Your task to perform on an android device: toggle improve location accuracy Image 0: 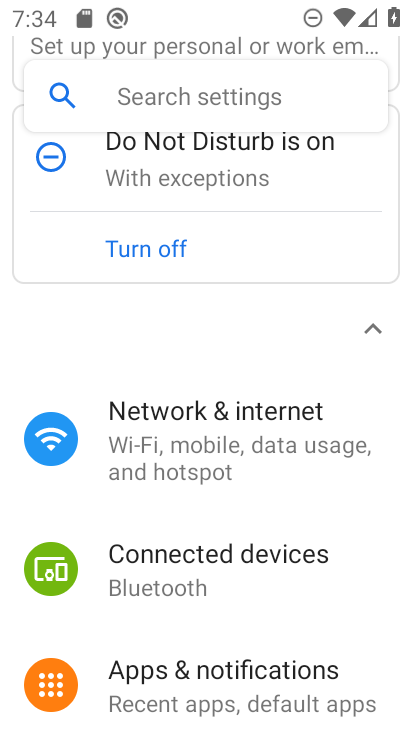
Step 0: press home button
Your task to perform on an android device: toggle improve location accuracy Image 1: 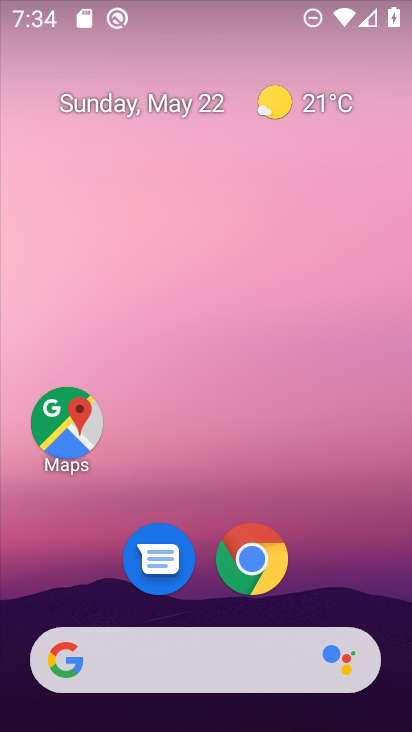
Step 1: drag from (303, 710) to (305, 138)
Your task to perform on an android device: toggle improve location accuracy Image 2: 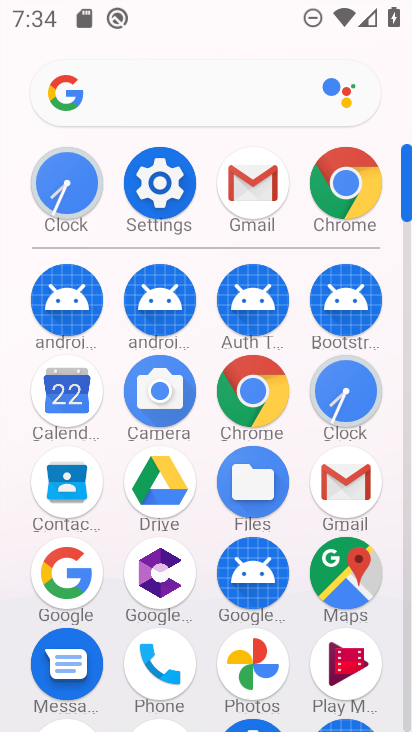
Step 2: click (172, 189)
Your task to perform on an android device: toggle improve location accuracy Image 3: 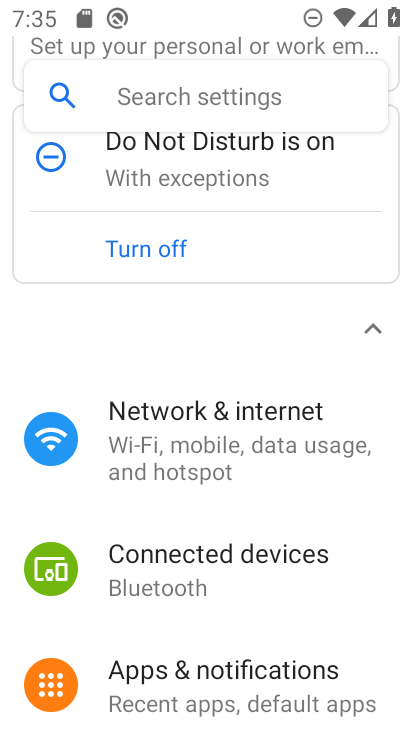
Step 3: drag from (200, 191) to (227, 239)
Your task to perform on an android device: toggle improve location accuracy Image 4: 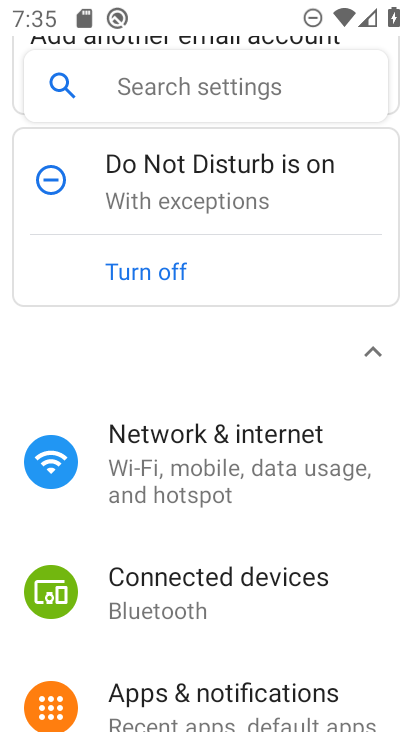
Step 4: click (200, 103)
Your task to perform on an android device: toggle improve location accuracy Image 5: 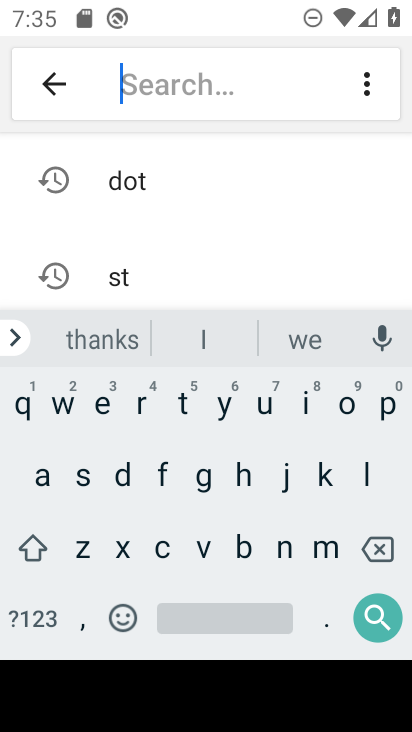
Step 5: click (372, 472)
Your task to perform on an android device: toggle improve location accuracy Image 6: 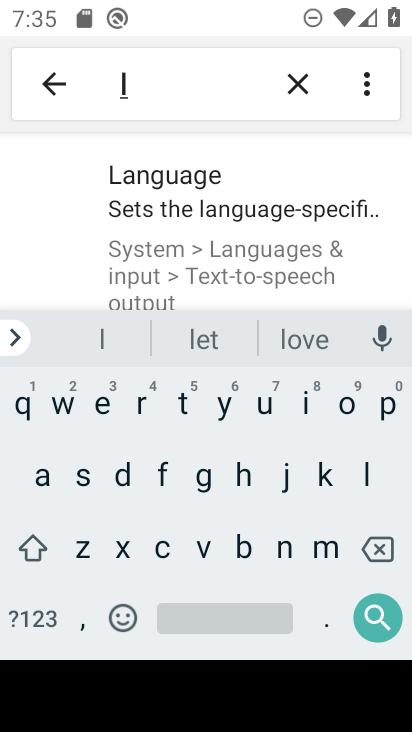
Step 6: click (345, 406)
Your task to perform on an android device: toggle improve location accuracy Image 7: 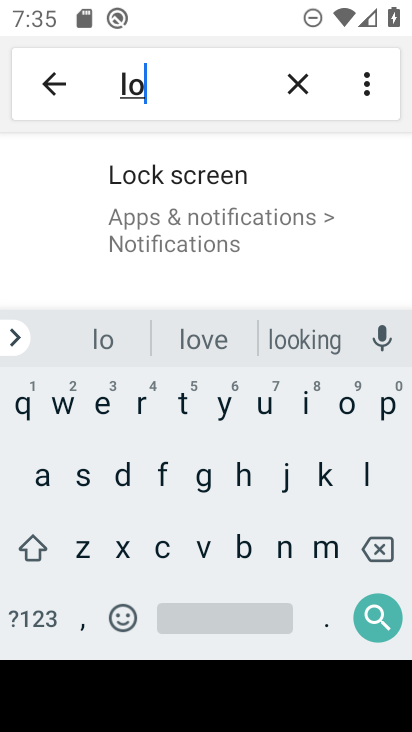
Step 7: drag from (262, 287) to (263, 191)
Your task to perform on an android device: toggle improve location accuracy Image 8: 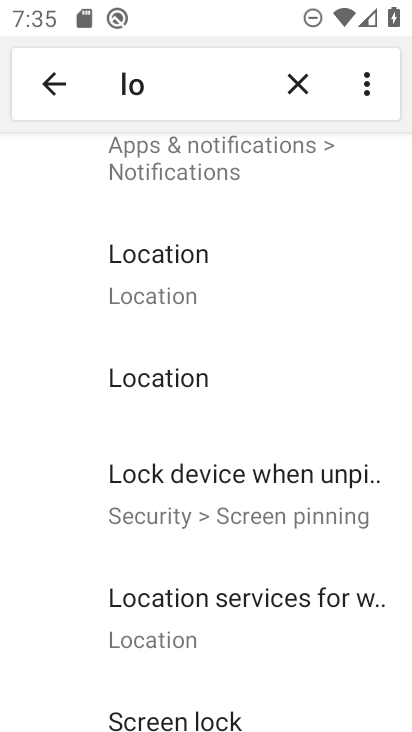
Step 8: click (215, 253)
Your task to perform on an android device: toggle improve location accuracy Image 9: 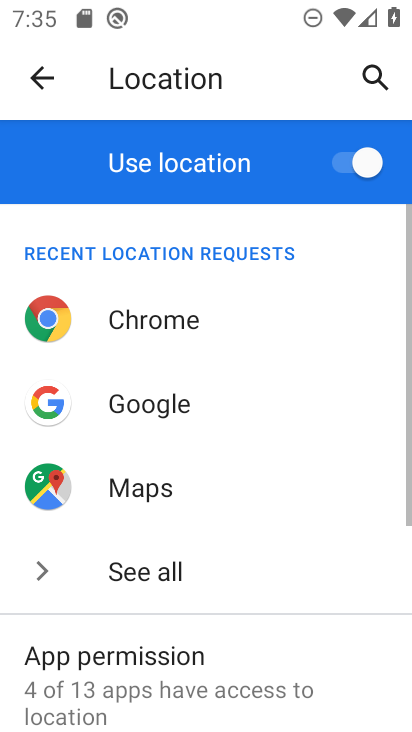
Step 9: drag from (115, 664) to (185, 274)
Your task to perform on an android device: toggle improve location accuracy Image 10: 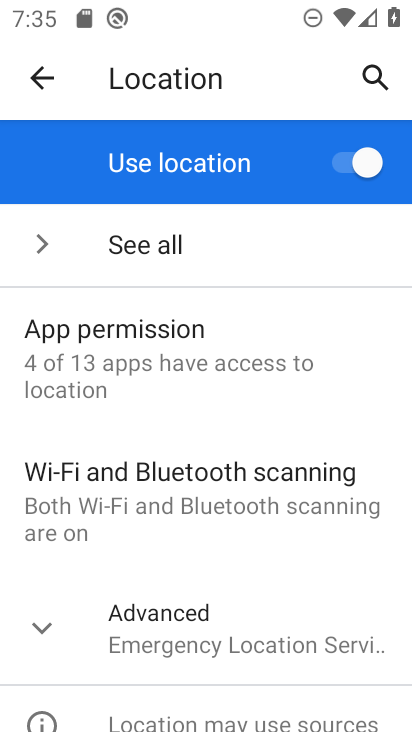
Step 10: click (55, 632)
Your task to perform on an android device: toggle improve location accuracy Image 11: 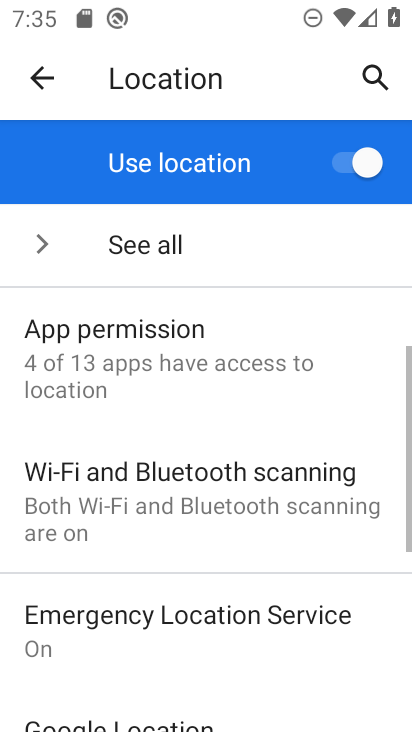
Step 11: drag from (98, 580) to (198, 330)
Your task to perform on an android device: toggle improve location accuracy Image 12: 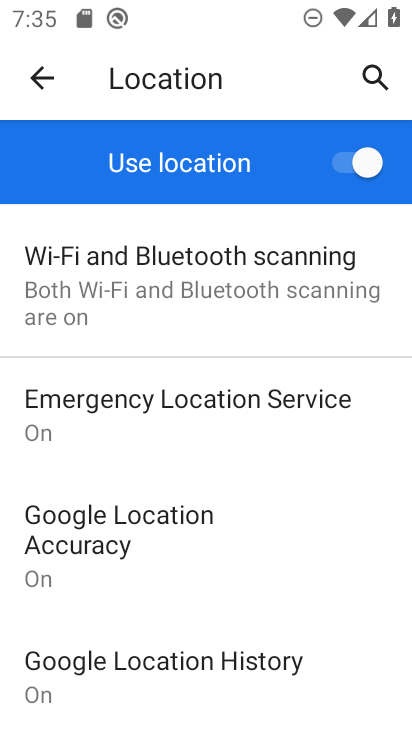
Step 12: click (117, 515)
Your task to perform on an android device: toggle improve location accuracy Image 13: 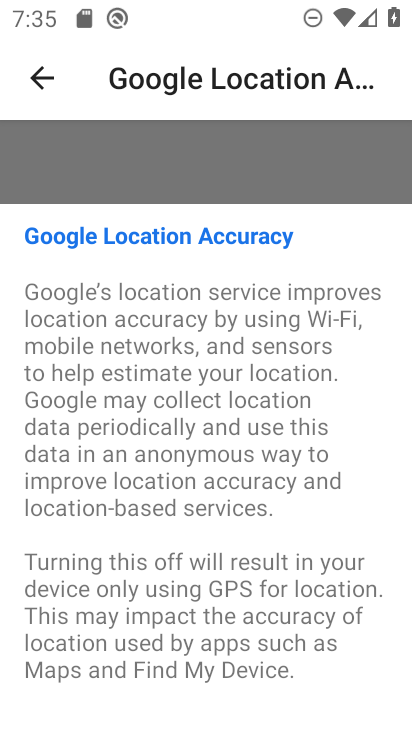
Step 13: task complete